Your task to perform on an android device: Open Google Maps and go to "Timeline" Image 0: 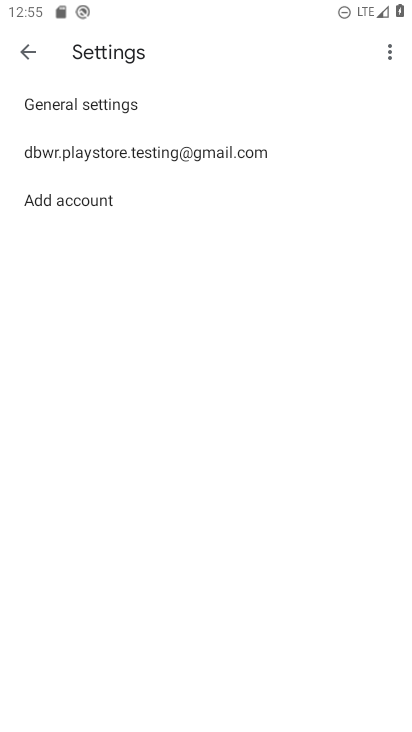
Step 0: press home button
Your task to perform on an android device: Open Google Maps and go to "Timeline" Image 1: 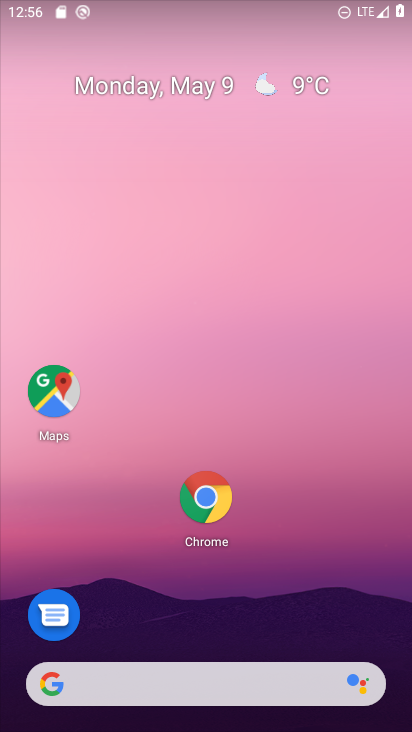
Step 1: drag from (345, 604) to (264, 83)
Your task to perform on an android device: Open Google Maps and go to "Timeline" Image 2: 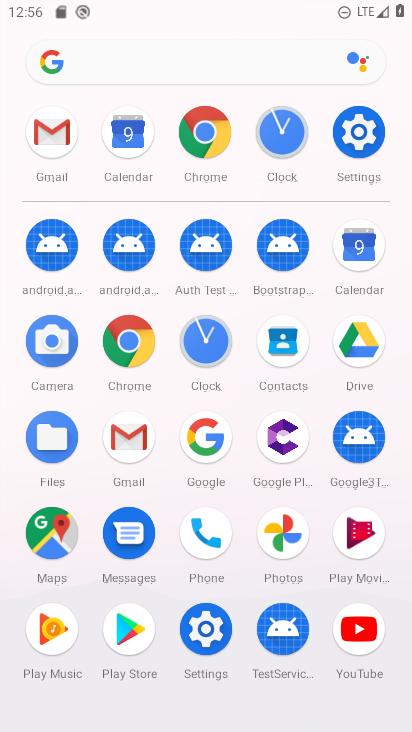
Step 2: click (45, 528)
Your task to perform on an android device: Open Google Maps and go to "Timeline" Image 3: 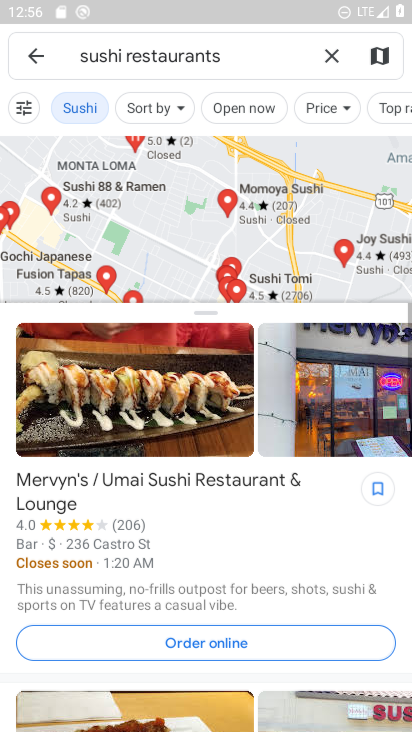
Step 3: click (36, 49)
Your task to perform on an android device: Open Google Maps and go to "Timeline" Image 4: 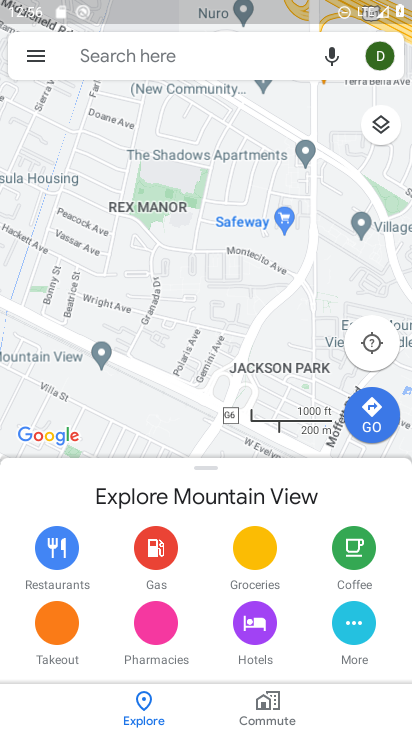
Step 4: click (36, 49)
Your task to perform on an android device: Open Google Maps and go to "Timeline" Image 5: 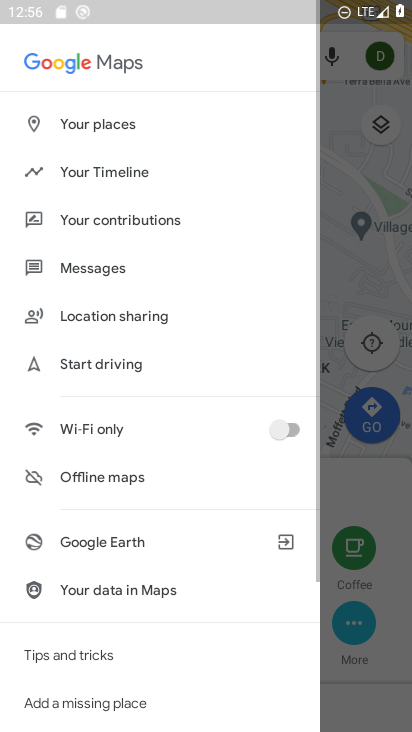
Step 5: click (118, 165)
Your task to perform on an android device: Open Google Maps and go to "Timeline" Image 6: 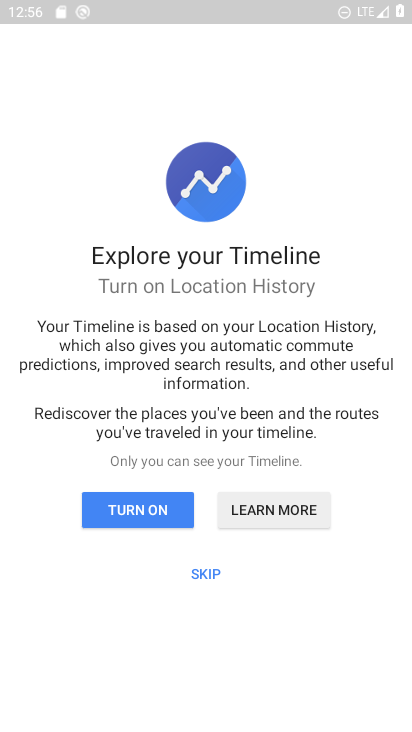
Step 6: task complete